Your task to perform on an android device: Open CNN.com Image 0: 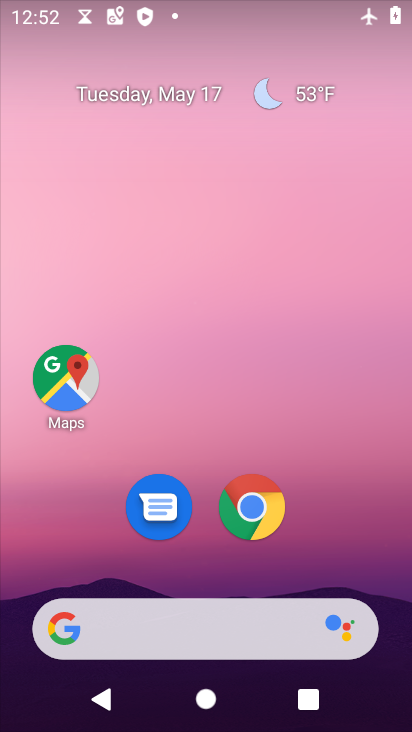
Step 0: click (266, 523)
Your task to perform on an android device: Open CNN.com Image 1: 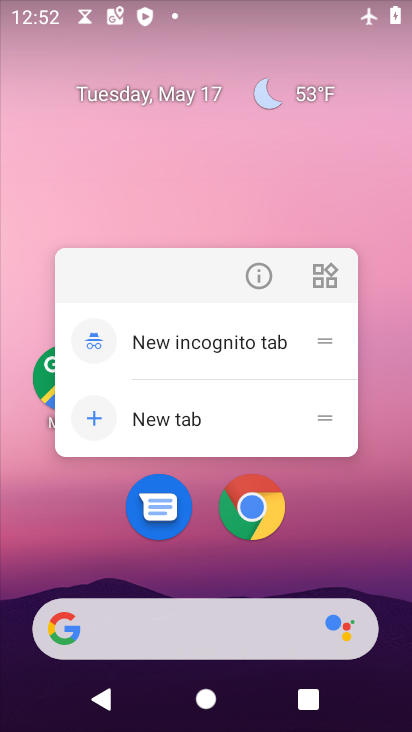
Step 1: click (249, 504)
Your task to perform on an android device: Open CNN.com Image 2: 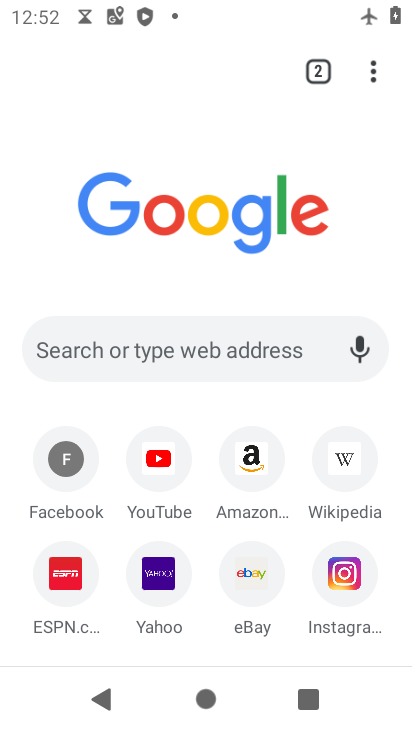
Step 2: click (171, 343)
Your task to perform on an android device: Open CNN.com Image 3: 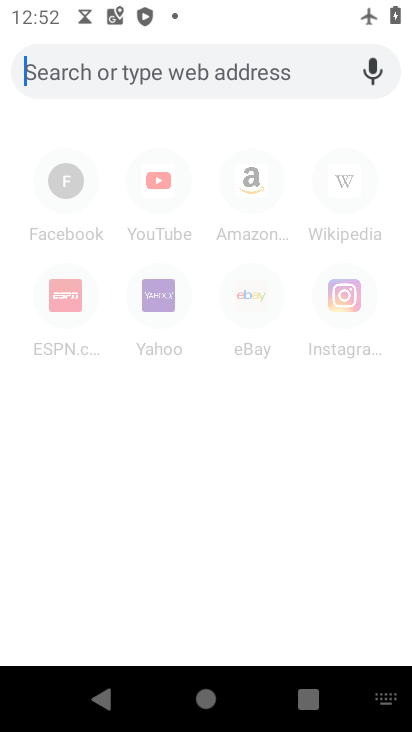
Step 3: type "CNN.com"
Your task to perform on an android device: Open CNN.com Image 4: 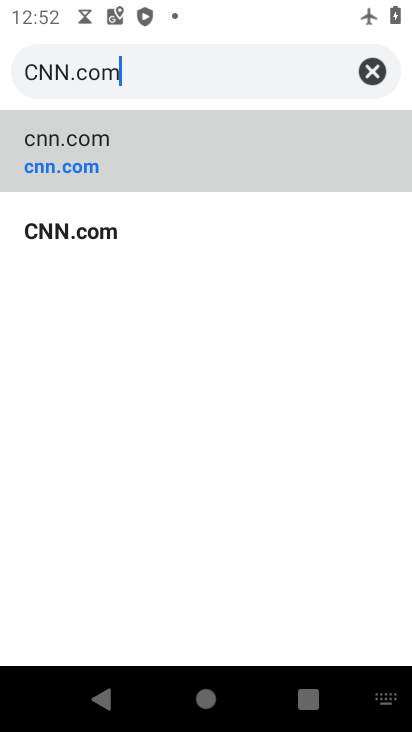
Step 4: click (75, 165)
Your task to perform on an android device: Open CNN.com Image 5: 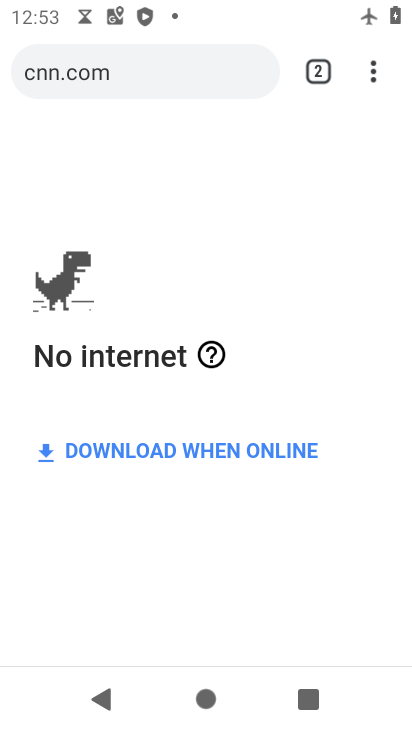
Step 5: task complete